Your task to perform on an android device: delete the emails in spam in the gmail app Image 0: 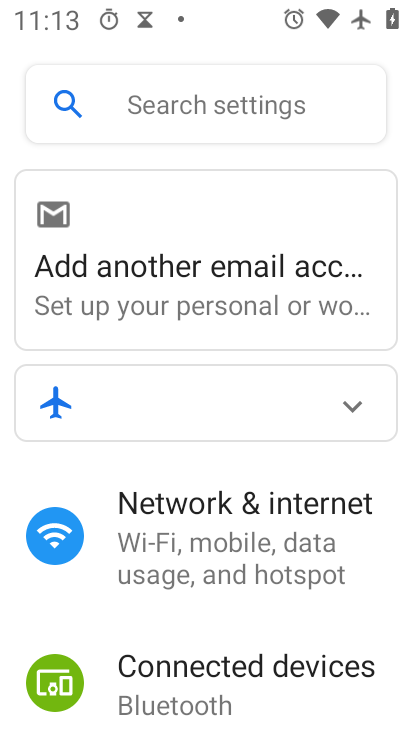
Step 0: press home button
Your task to perform on an android device: delete the emails in spam in the gmail app Image 1: 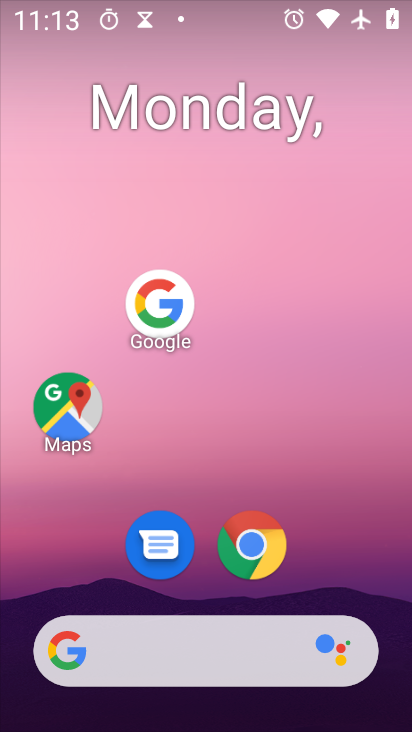
Step 1: drag from (204, 664) to (317, 229)
Your task to perform on an android device: delete the emails in spam in the gmail app Image 2: 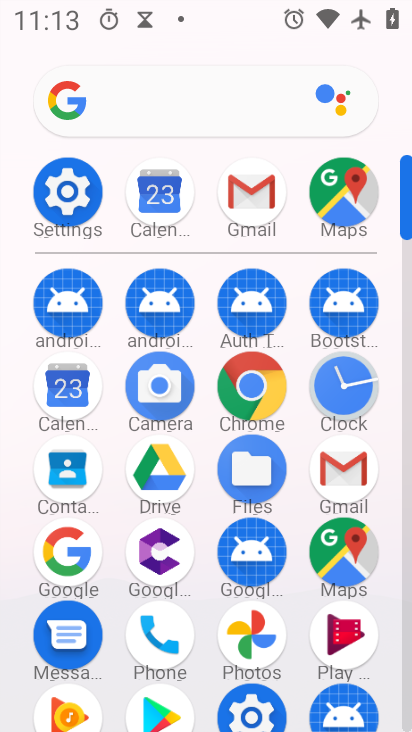
Step 2: click (237, 193)
Your task to perform on an android device: delete the emails in spam in the gmail app Image 3: 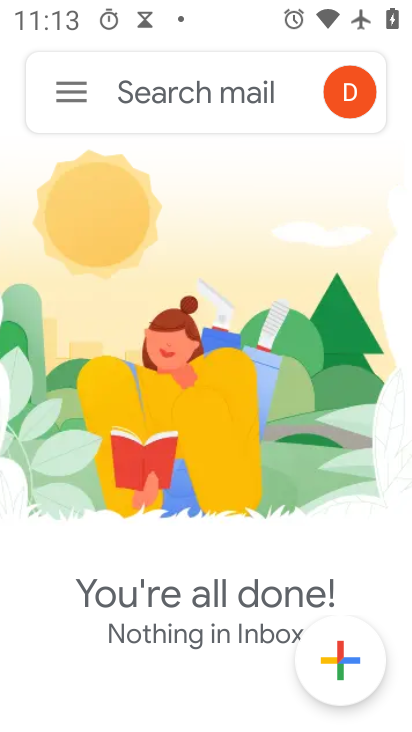
Step 3: click (69, 92)
Your task to perform on an android device: delete the emails in spam in the gmail app Image 4: 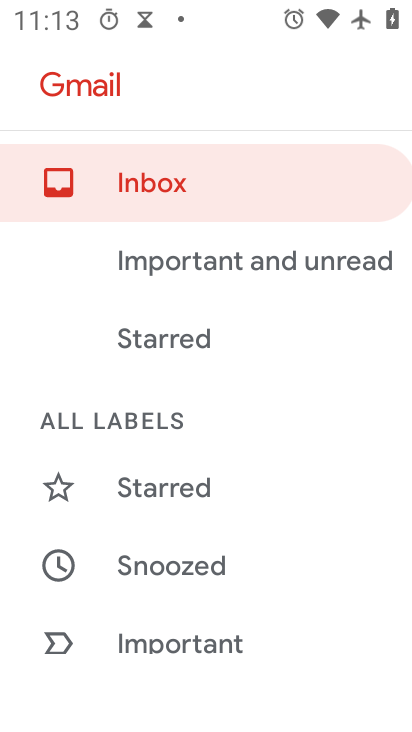
Step 4: drag from (237, 598) to (273, 254)
Your task to perform on an android device: delete the emails in spam in the gmail app Image 5: 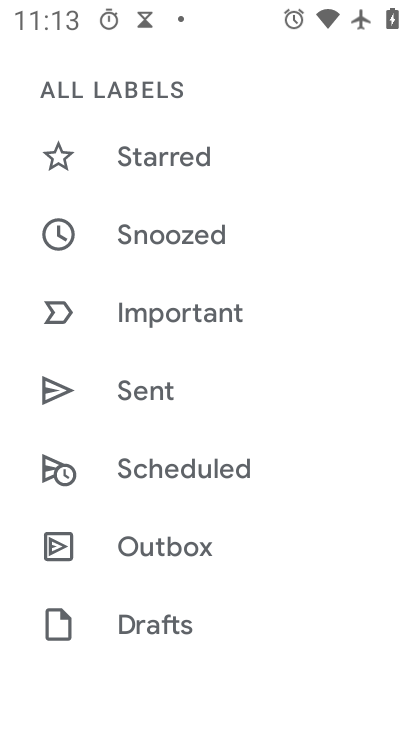
Step 5: drag from (286, 517) to (337, 174)
Your task to perform on an android device: delete the emails in spam in the gmail app Image 6: 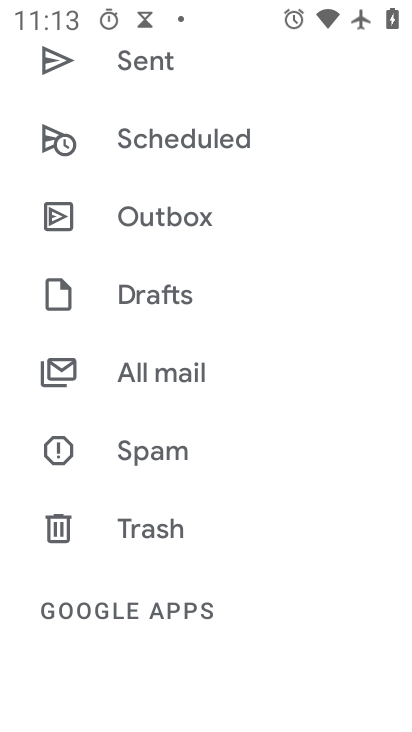
Step 6: click (166, 449)
Your task to perform on an android device: delete the emails in spam in the gmail app Image 7: 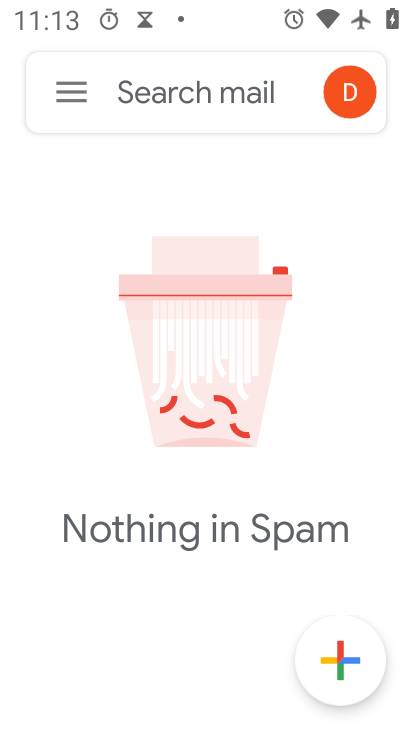
Step 7: task complete